Your task to perform on an android device: Search for seafood restaurants on Google Maps Image 0: 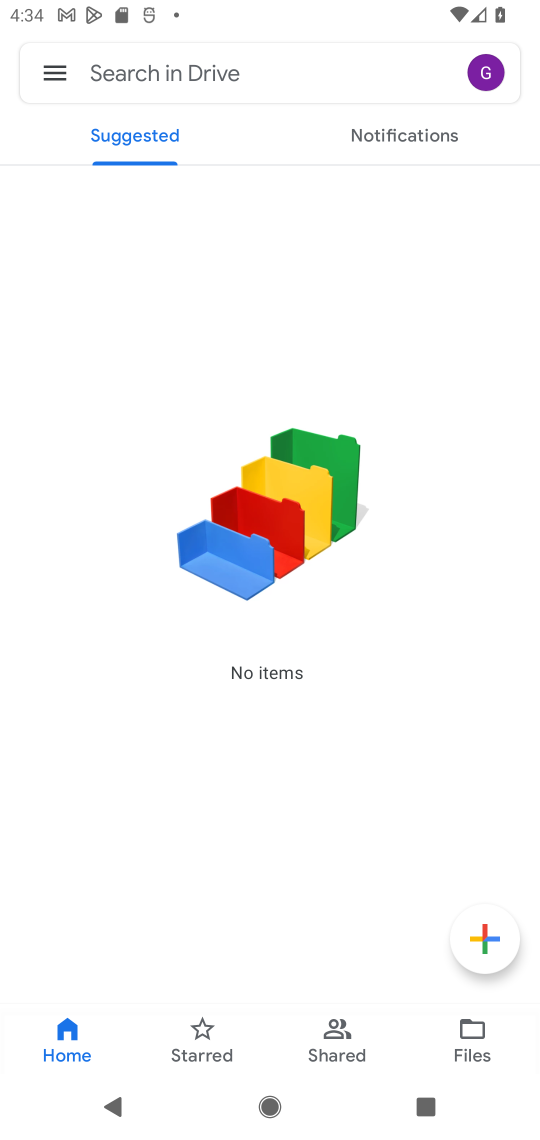
Step 0: press home button
Your task to perform on an android device: Search for seafood restaurants on Google Maps Image 1: 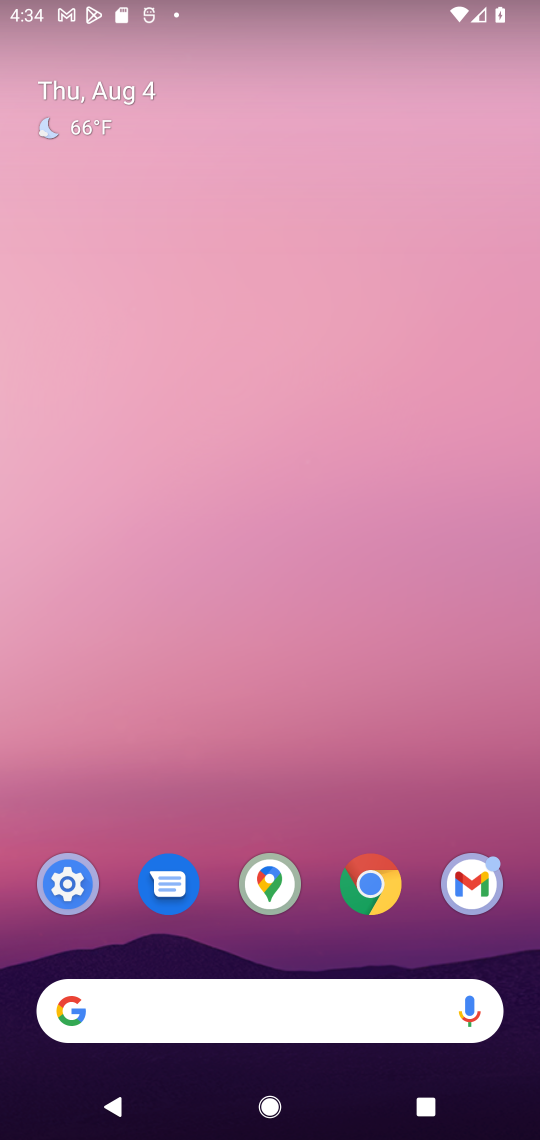
Step 1: click (294, 885)
Your task to perform on an android device: Search for seafood restaurants on Google Maps Image 2: 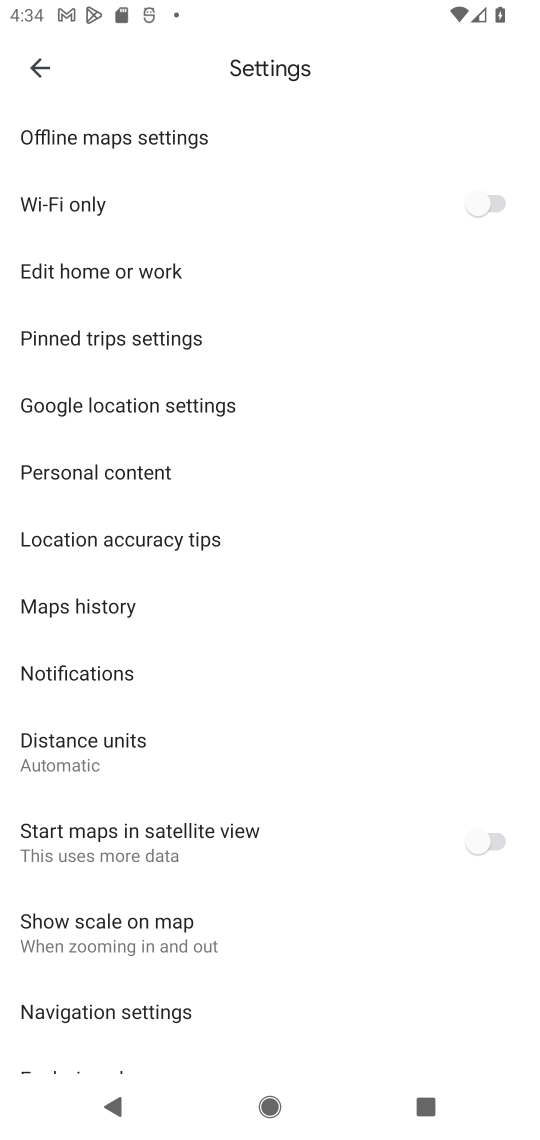
Step 2: click (33, 74)
Your task to perform on an android device: Search for seafood restaurants on Google Maps Image 3: 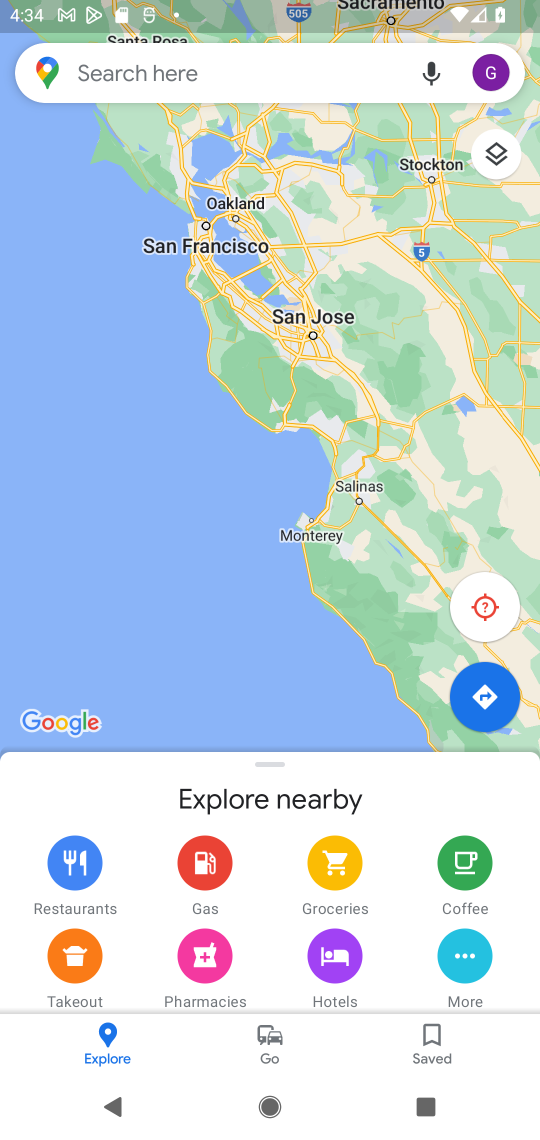
Step 3: click (177, 69)
Your task to perform on an android device: Search for seafood restaurants on Google Maps Image 4: 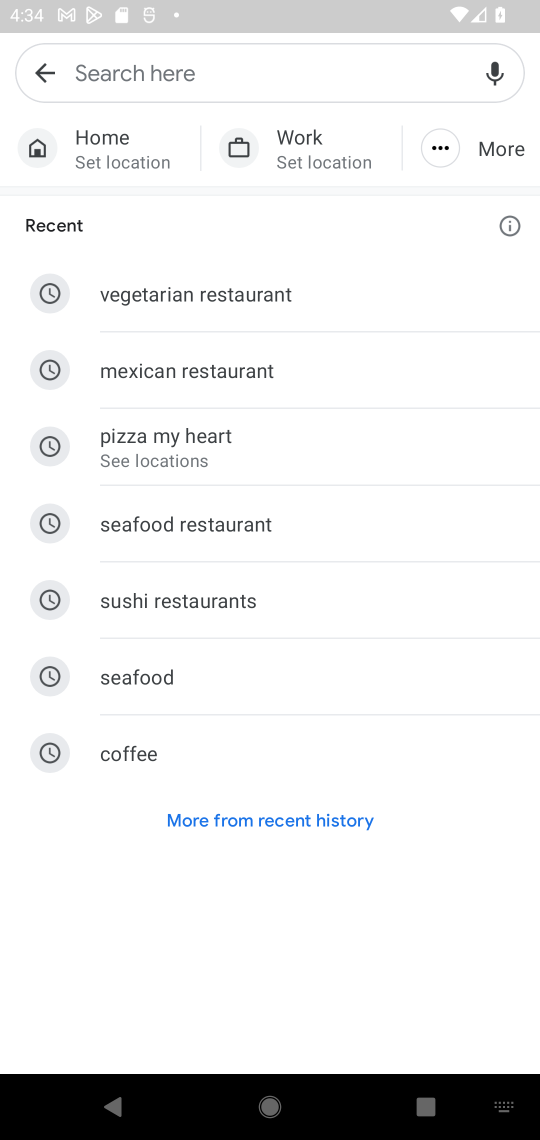
Step 4: click (352, 534)
Your task to perform on an android device: Search for seafood restaurants on Google Maps Image 5: 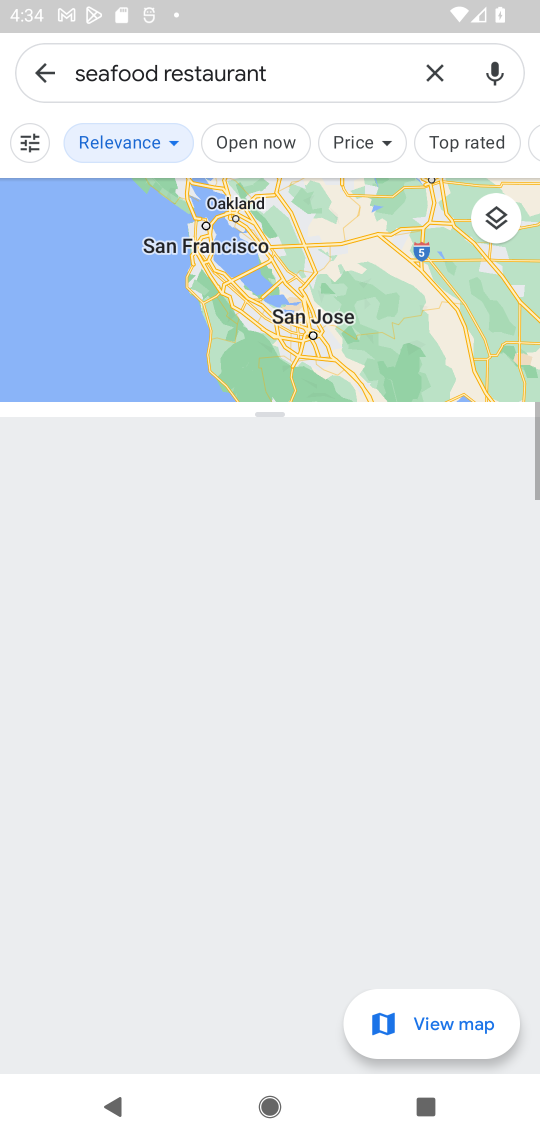
Step 5: task complete